Your task to perform on an android device: open chrome and create a bookmark for the current page Image 0: 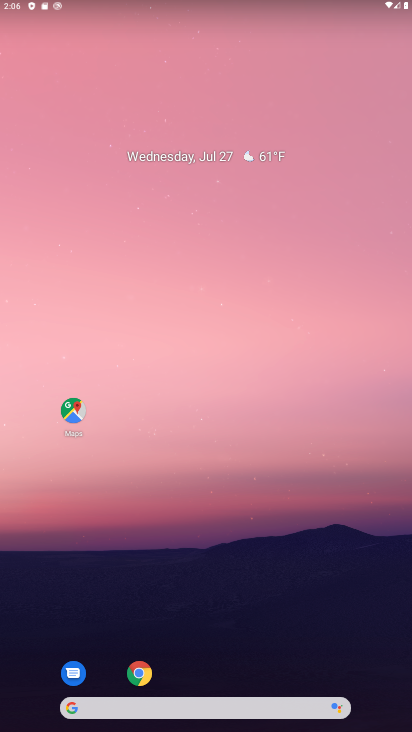
Step 0: click (139, 667)
Your task to perform on an android device: open chrome and create a bookmark for the current page Image 1: 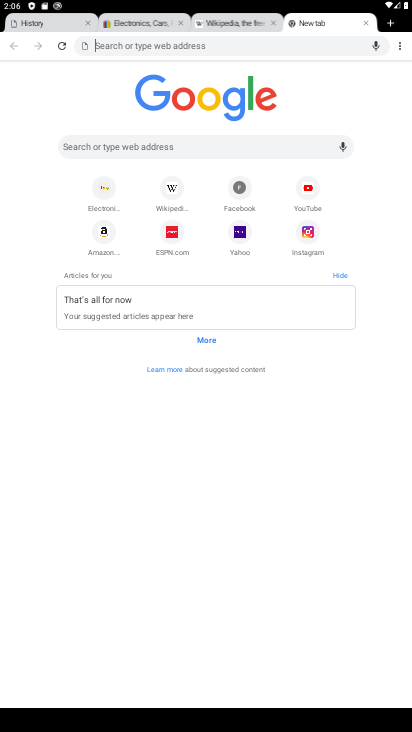
Step 1: click (404, 43)
Your task to perform on an android device: open chrome and create a bookmark for the current page Image 2: 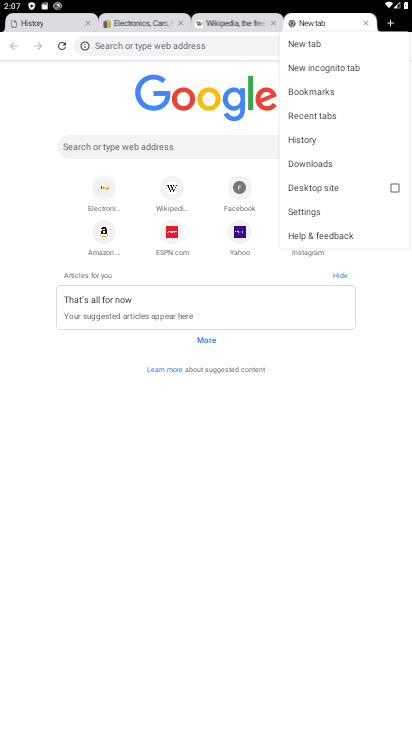
Step 2: click (104, 71)
Your task to perform on an android device: open chrome and create a bookmark for the current page Image 3: 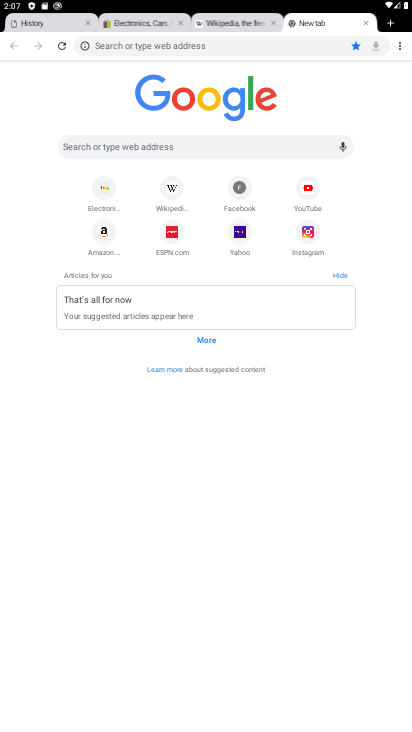
Step 3: task complete